Your task to perform on an android device: turn on notifications settings in the gmail app Image 0: 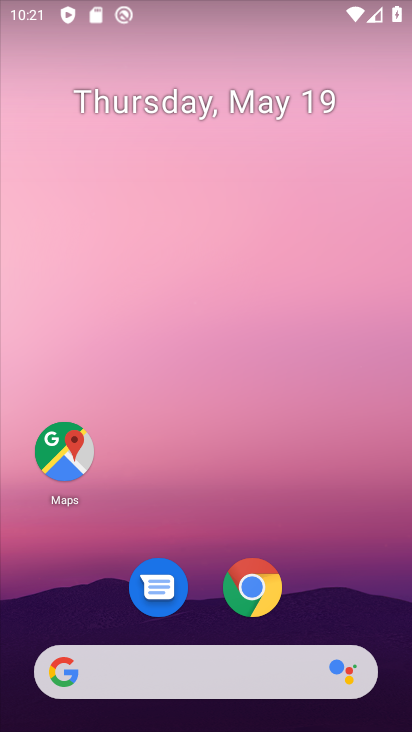
Step 0: drag from (311, 546) to (287, 192)
Your task to perform on an android device: turn on notifications settings in the gmail app Image 1: 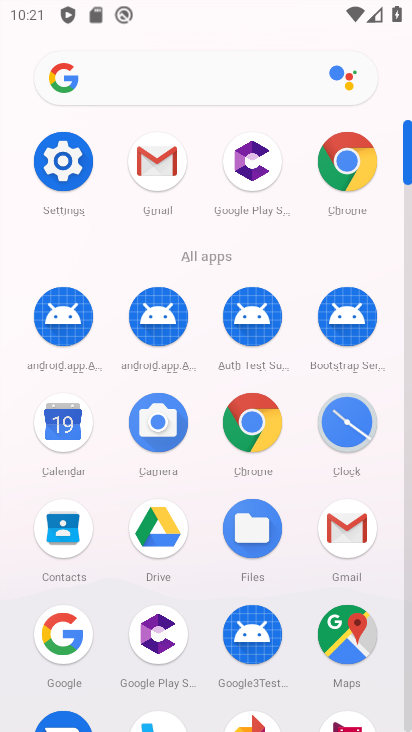
Step 1: click (343, 539)
Your task to perform on an android device: turn on notifications settings in the gmail app Image 2: 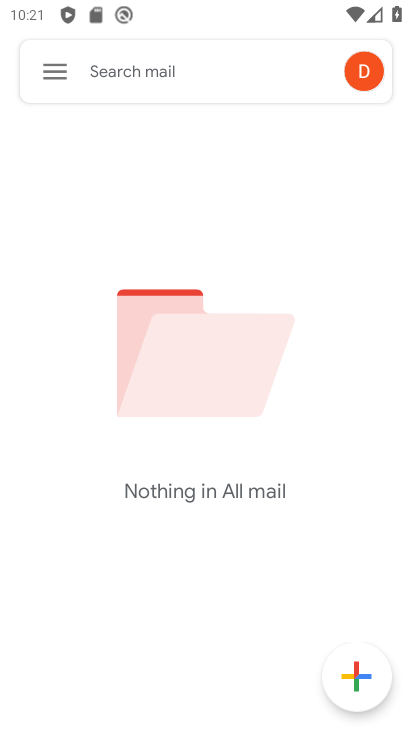
Step 2: click (69, 78)
Your task to perform on an android device: turn on notifications settings in the gmail app Image 3: 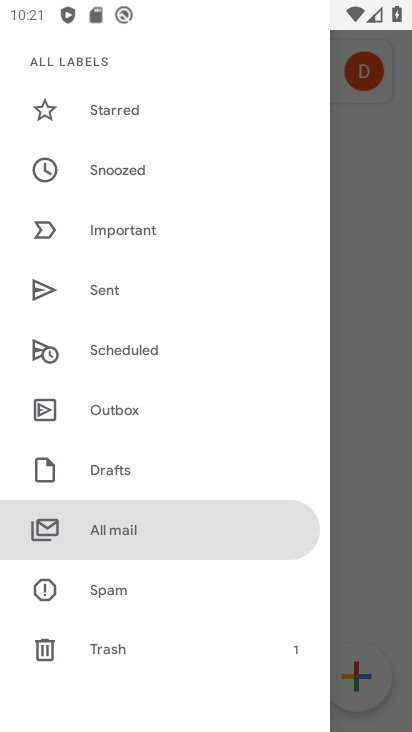
Step 3: drag from (187, 662) to (165, 232)
Your task to perform on an android device: turn on notifications settings in the gmail app Image 4: 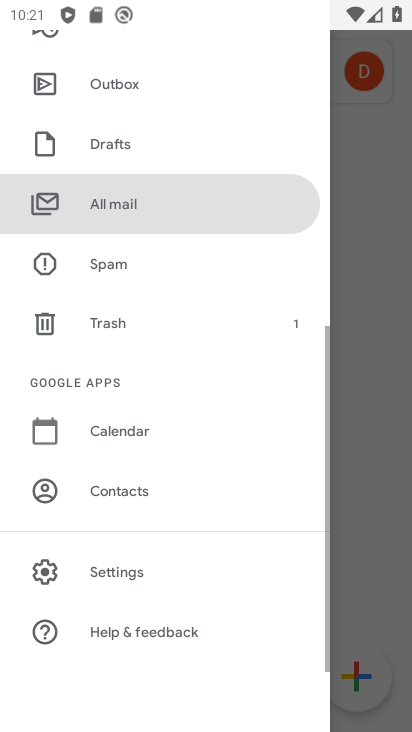
Step 4: click (126, 575)
Your task to perform on an android device: turn on notifications settings in the gmail app Image 5: 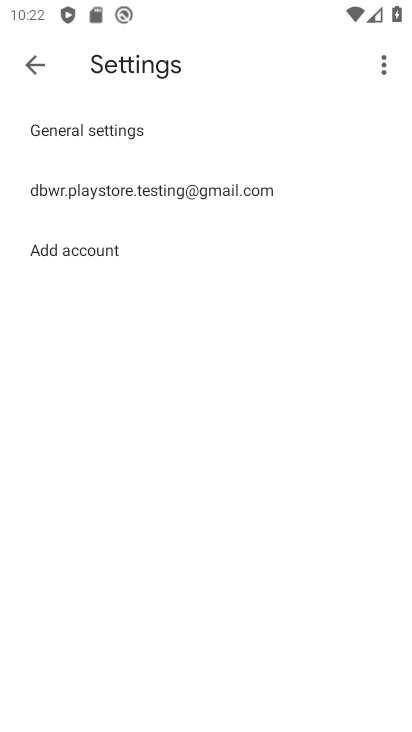
Step 5: click (199, 188)
Your task to perform on an android device: turn on notifications settings in the gmail app Image 6: 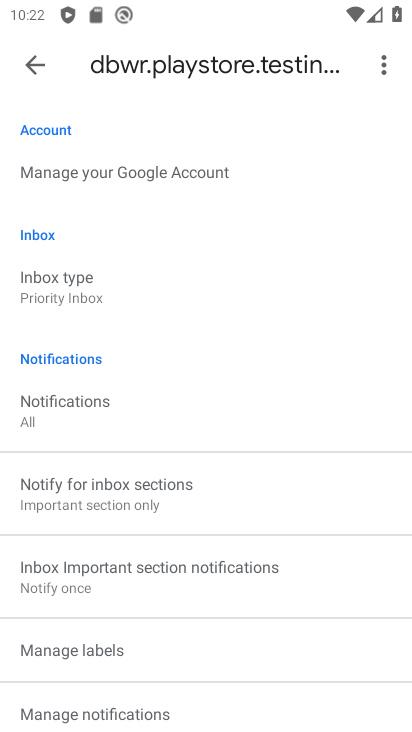
Step 6: click (136, 430)
Your task to perform on an android device: turn on notifications settings in the gmail app Image 7: 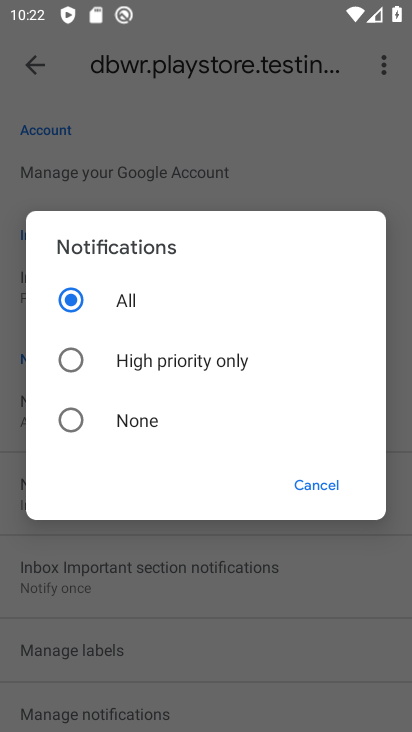
Step 7: task complete